Your task to perform on an android device: turn off sleep mode Image 0: 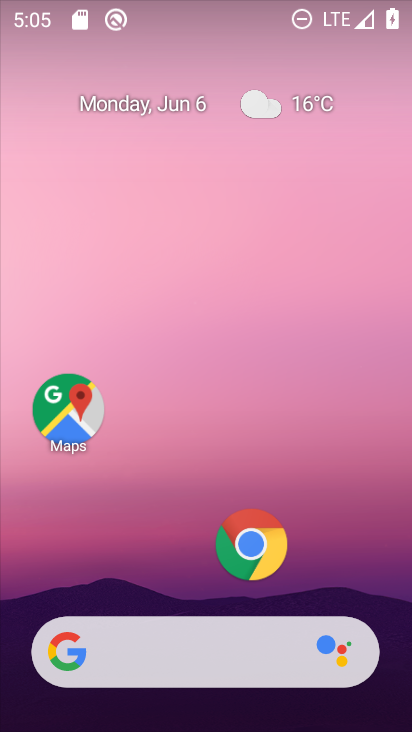
Step 0: drag from (189, 589) to (174, 35)
Your task to perform on an android device: turn off sleep mode Image 1: 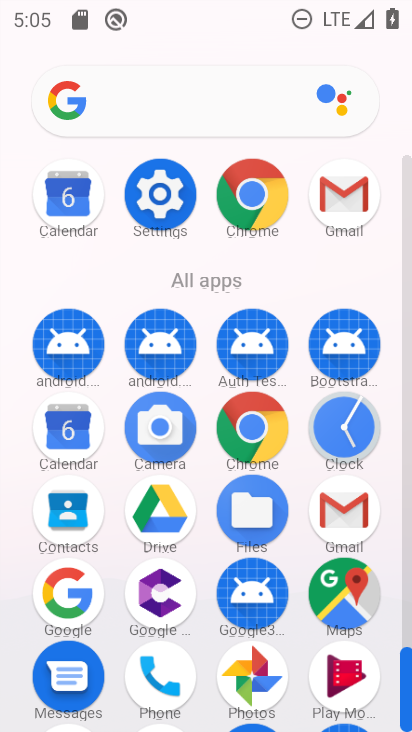
Step 1: click (157, 184)
Your task to perform on an android device: turn off sleep mode Image 2: 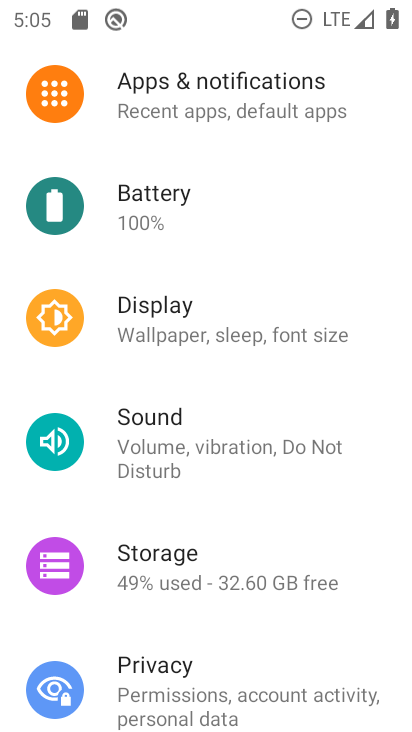
Step 2: click (206, 312)
Your task to perform on an android device: turn off sleep mode Image 3: 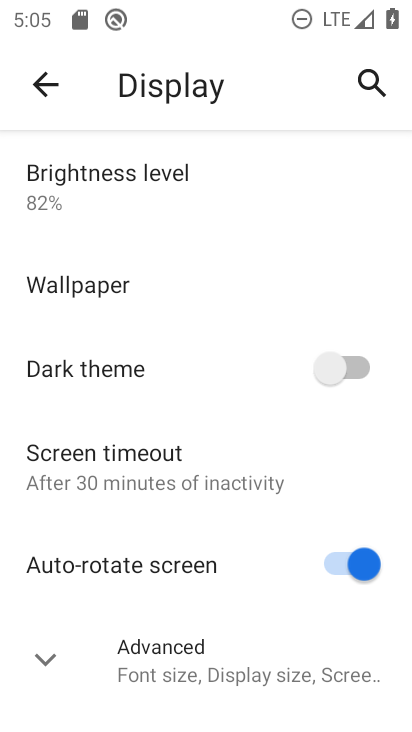
Step 3: click (54, 648)
Your task to perform on an android device: turn off sleep mode Image 4: 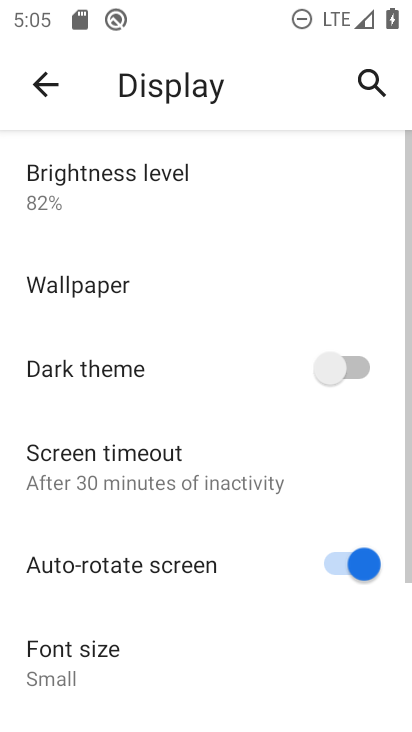
Step 4: task complete